Your task to perform on an android device: Show me popular games on the Play Store Image 0: 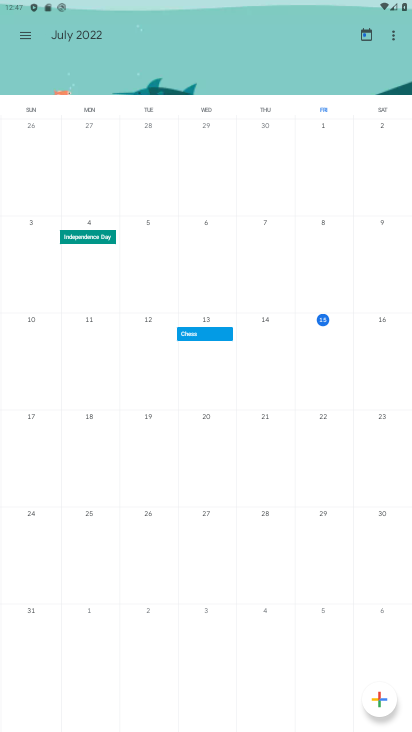
Step 0: press home button
Your task to perform on an android device: Show me popular games on the Play Store Image 1: 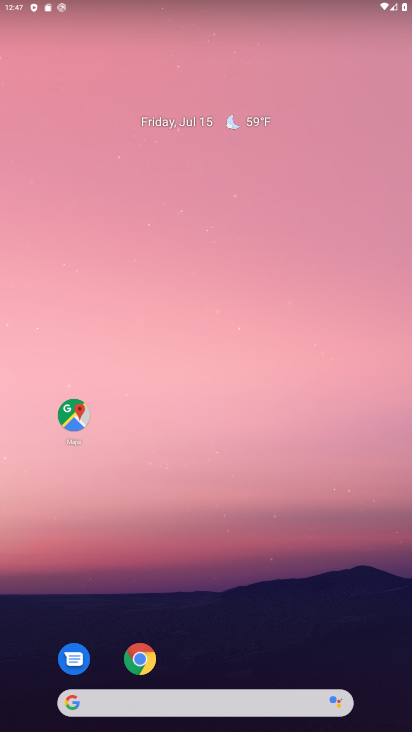
Step 1: drag from (220, 583) to (226, 138)
Your task to perform on an android device: Show me popular games on the Play Store Image 2: 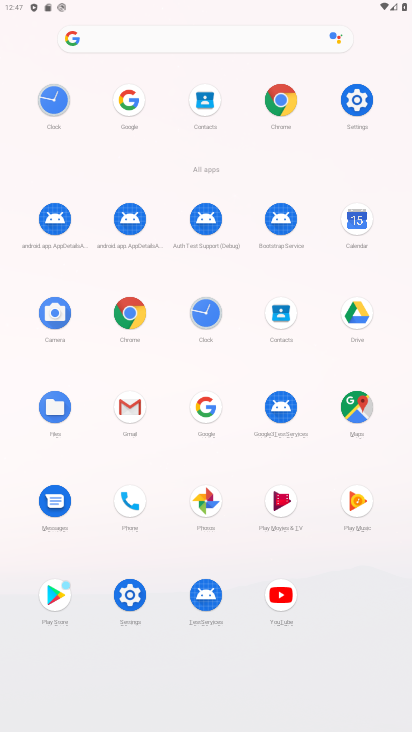
Step 2: click (60, 594)
Your task to perform on an android device: Show me popular games on the Play Store Image 3: 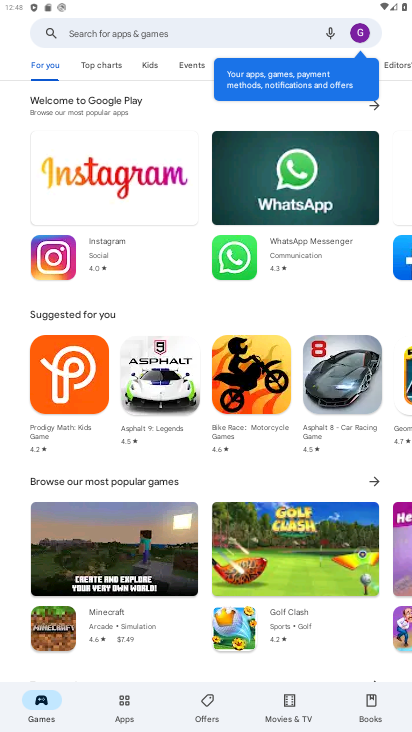
Step 3: click (303, 484)
Your task to perform on an android device: Show me popular games on the Play Store Image 4: 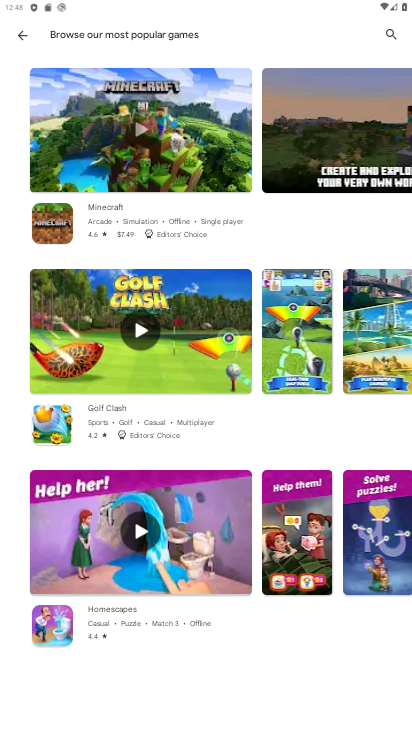
Step 4: task complete